Your task to perform on an android device: set the timer Image 0: 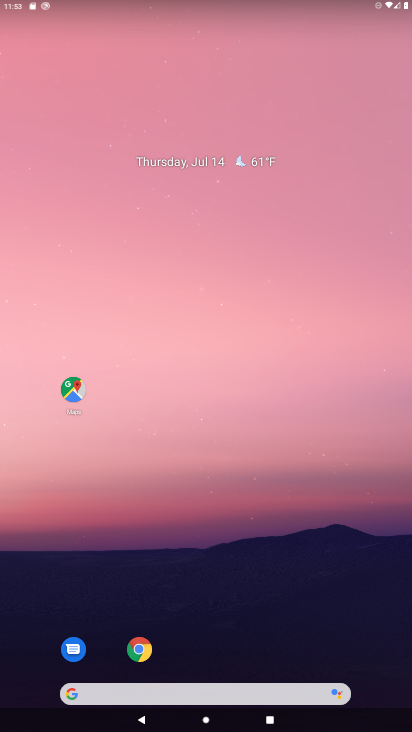
Step 0: drag from (260, 667) to (273, 7)
Your task to perform on an android device: set the timer Image 1: 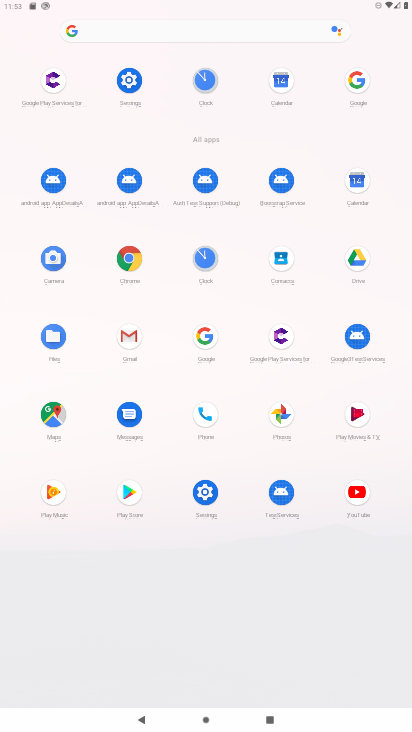
Step 1: click (203, 258)
Your task to perform on an android device: set the timer Image 2: 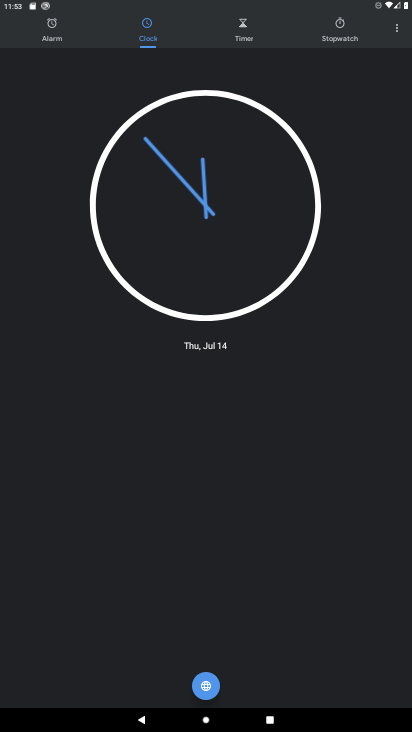
Step 2: click (244, 34)
Your task to perform on an android device: set the timer Image 3: 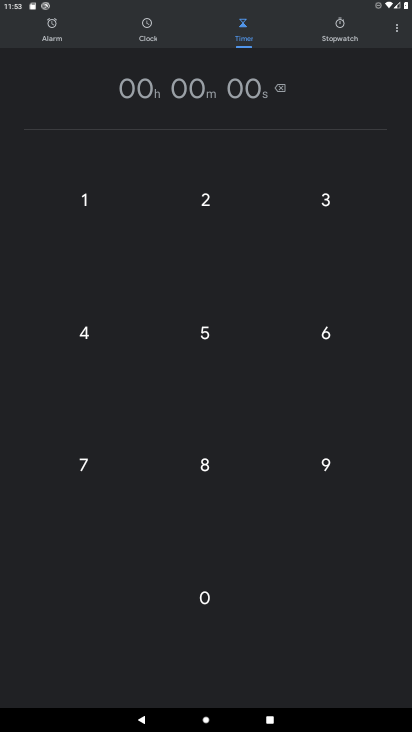
Step 3: click (202, 334)
Your task to perform on an android device: set the timer Image 4: 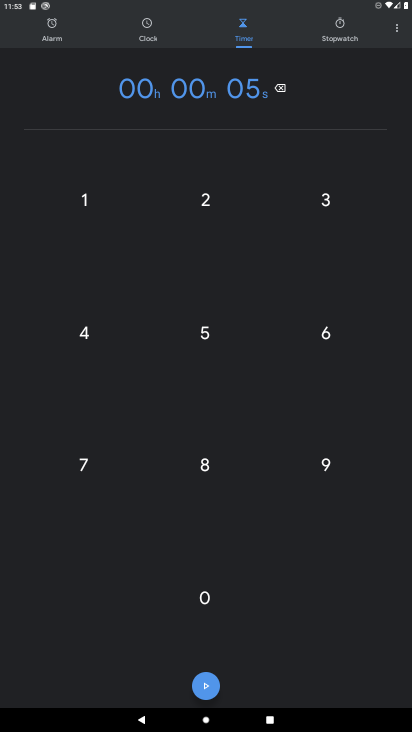
Step 4: click (201, 598)
Your task to perform on an android device: set the timer Image 5: 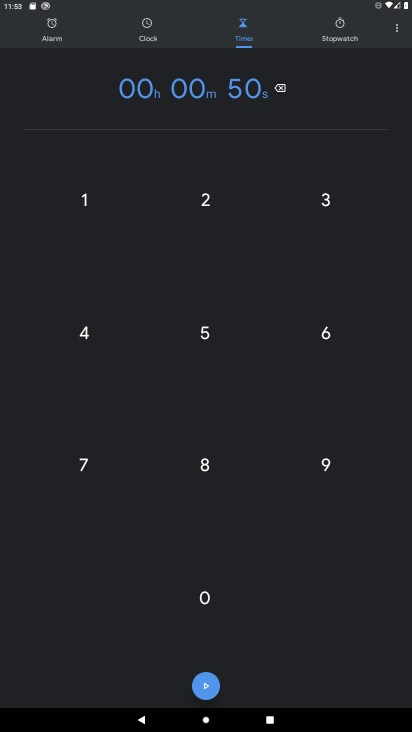
Step 5: click (211, 685)
Your task to perform on an android device: set the timer Image 6: 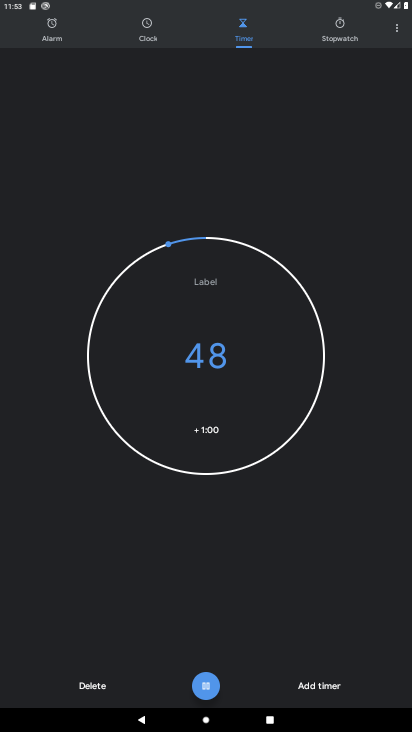
Step 6: task complete